Your task to perform on an android device: Go to Yahoo.com Image 0: 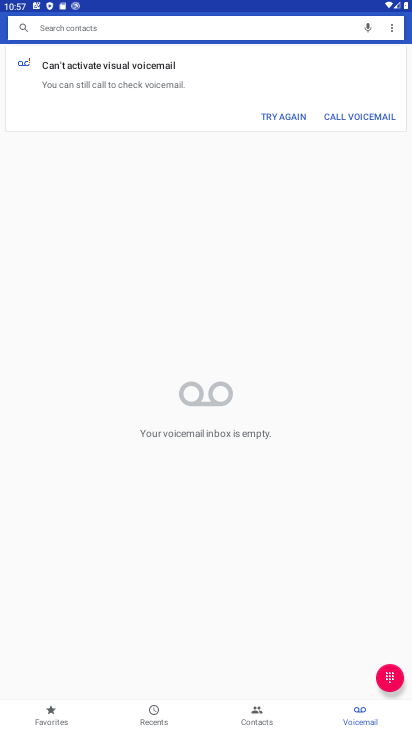
Step 0: press home button
Your task to perform on an android device: Go to Yahoo.com Image 1: 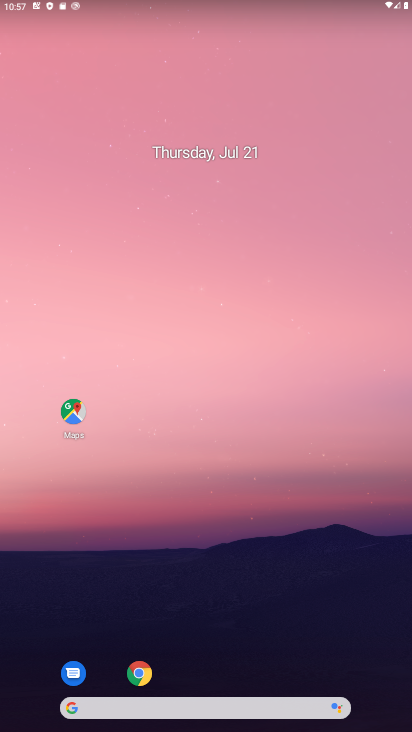
Step 1: click (141, 667)
Your task to perform on an android device: Go to Yahoo.com Image 2: 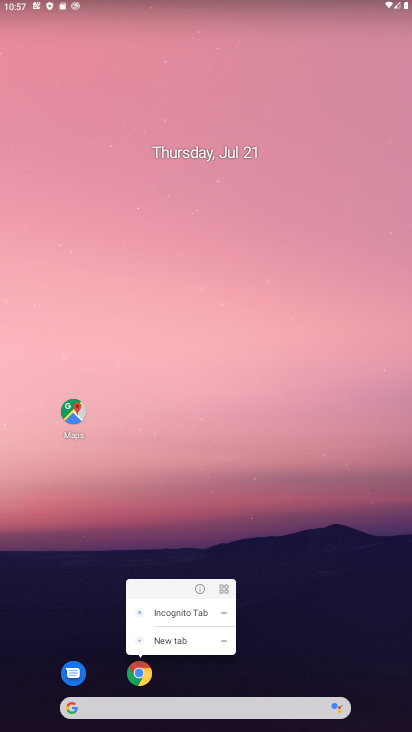
Step 2: click (140, 677)
Your task to perform on an android device: Go to Yahoo.com Image 3: 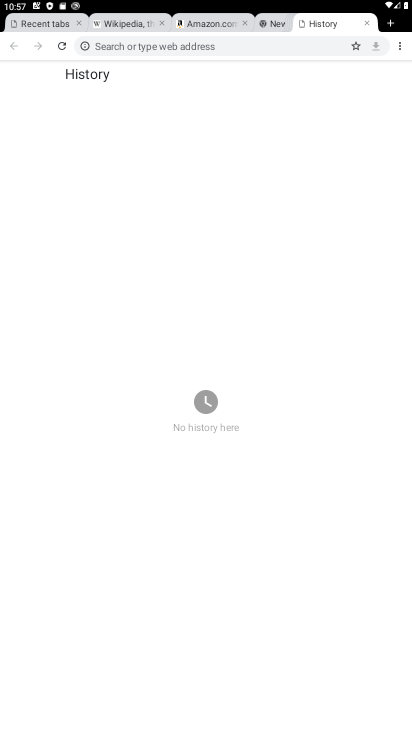
Step 3: click (389, 26)
Your task to perform on an android device: Go to Yahoo.com Image 4: 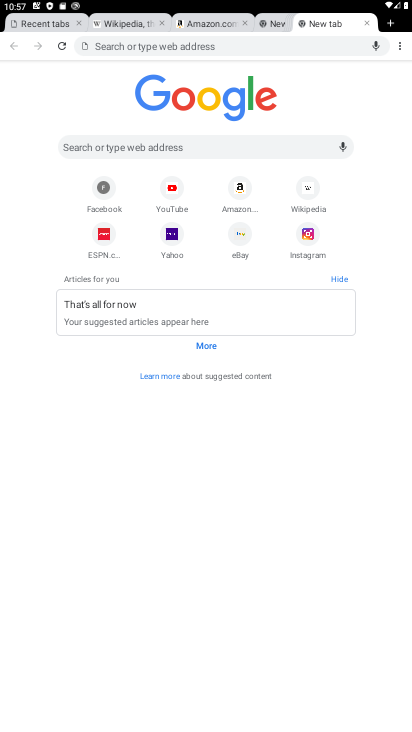
Step 4: click (175, 246)
Your task to perform on an android device: Go to Yahoo.com Image 5: 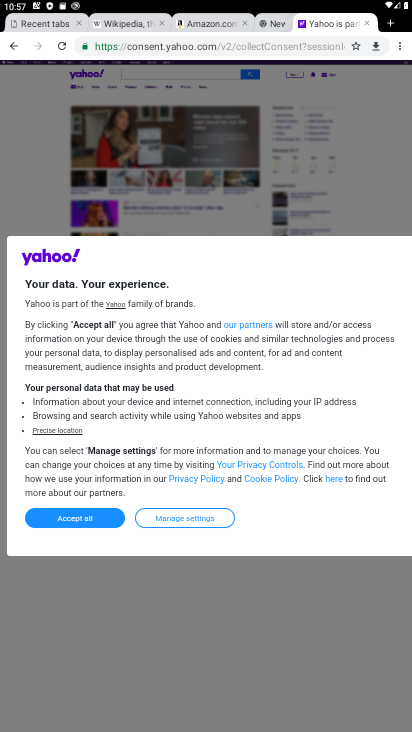
Step 5: task complete